Your task to perform on an android device: turn on notifications settings in the gmail app Image 0: 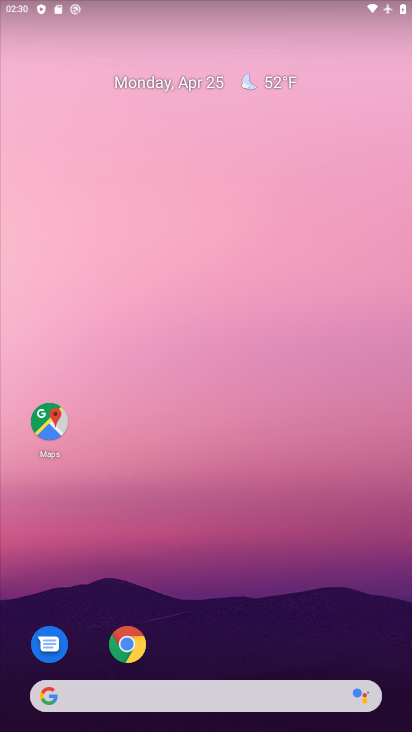
Step 0: click (227, 627)
Your task to perform on an android device: turn on notifications settings in the gmail app Image 1: 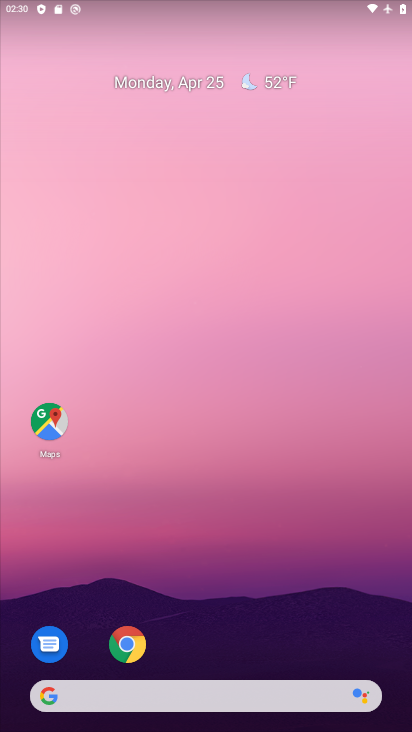
Step 1: drag from (227, 627) to (207, 61)
Your task to perform on an android device: turn on notifications settings in the gmail app Image 2: 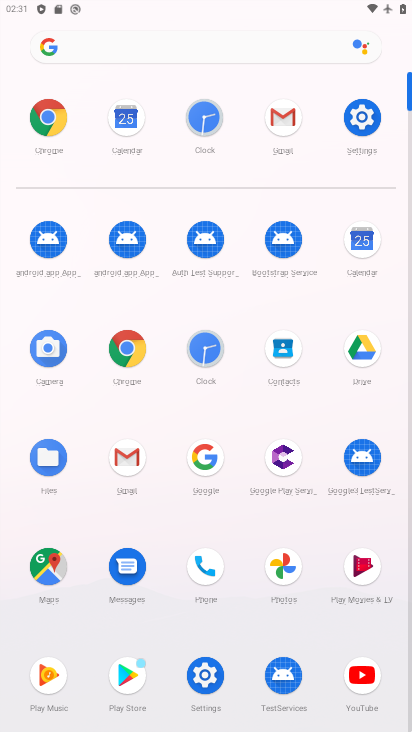
Step 2: click (290, 138)
Your task to perform on an android device: turn on notifications settings in the gmail app Image 3: 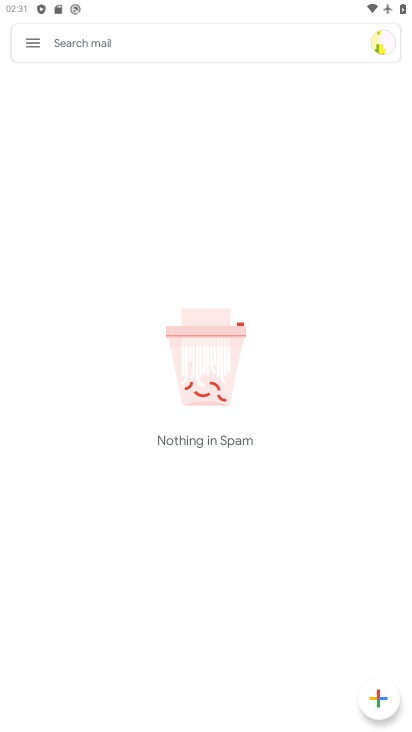
Step 3: click (21, 46)
Your task to perform on an android device: turn on notifications settings in the gmail app Image 4: 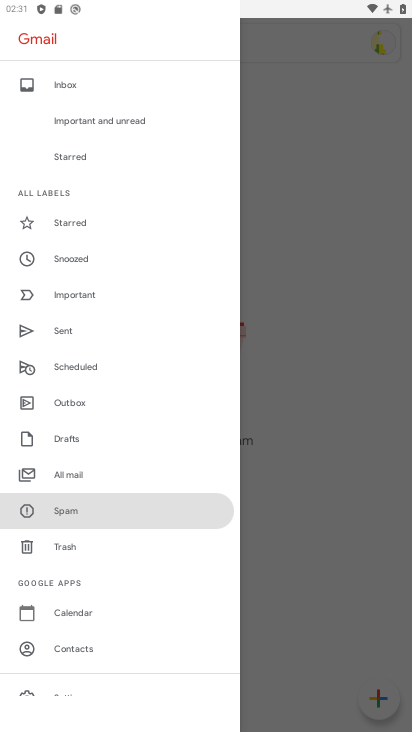
Step 4: drag from (117, 479) to (108, 232)
Your task to perform on an android device: turn on notifications settings in the gmail app Image 5: 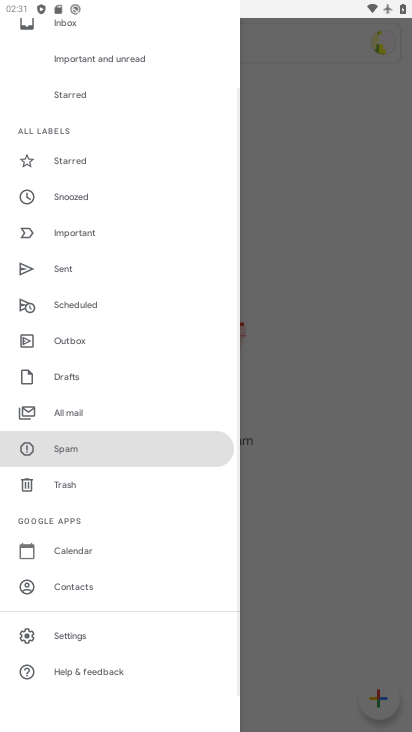
Step 5: click (124, 616)
Your task to perform on an android device: turn on notifications settings in the gmail app Image 6: 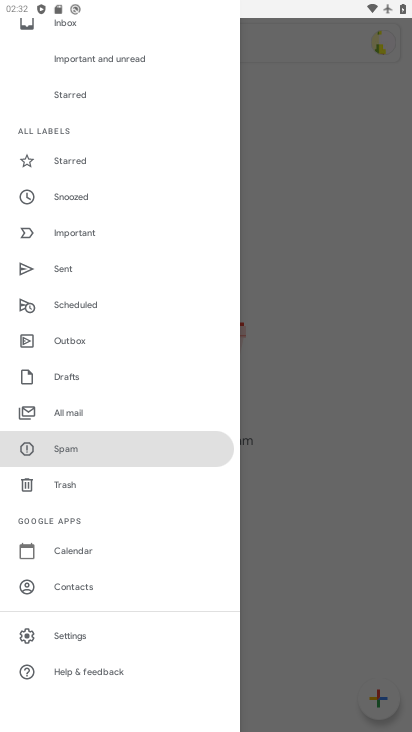
Step 6: click (117, 622)
Your task to perform on an android device: turn on notifications settings in the gmail app Image 7: 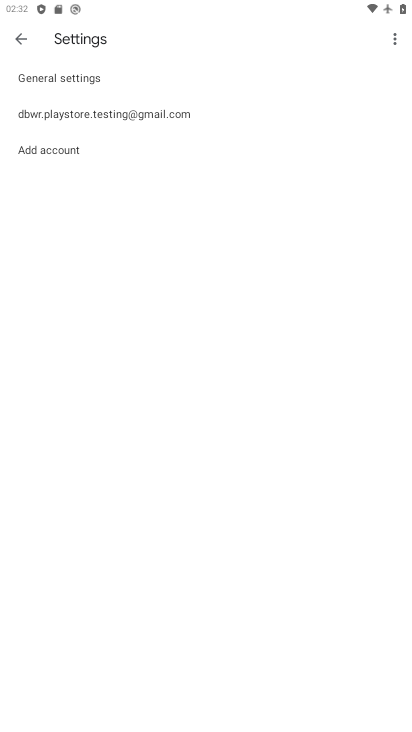
Step 7: click (110, 82)
Your task to perform on an android device: turn on notifications settings in the gmail app Image 8: 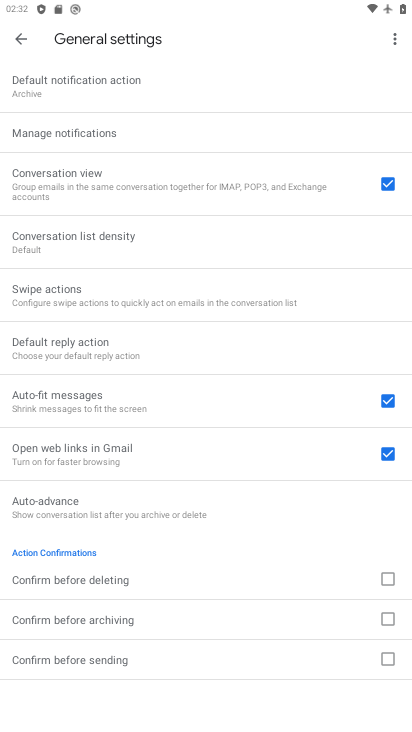
Step 8: click (259, 137)
Your task to perform on an android device: turn on notifications settings in the gmail app Image 9: 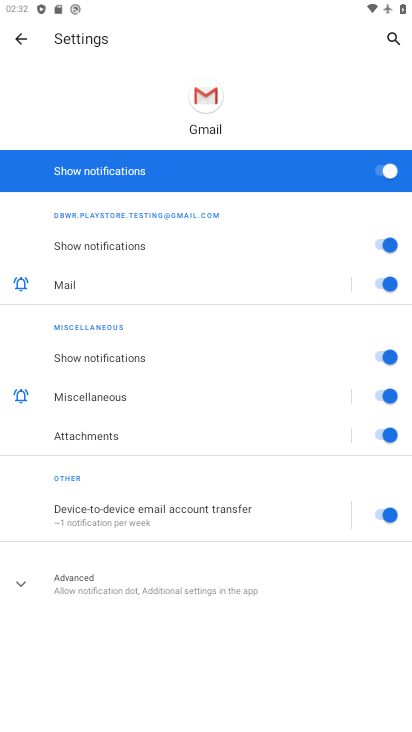
Step 9: task complete